Your task to perform on an android device: create a new album in the google photos Image 0: 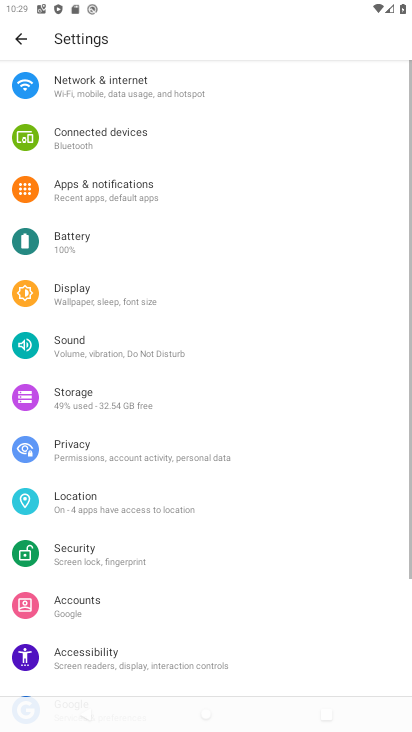
Step 0: press home button
Your task to perform on an android device: create a new album in the google photos Image 1: 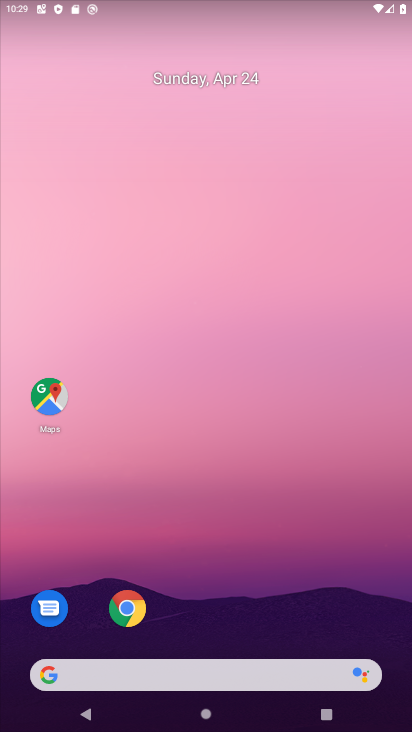
Step 1: drag from (275, 686) to (140, 157)
Your task to perform on an android device: create a new album in the google photos Image 2: 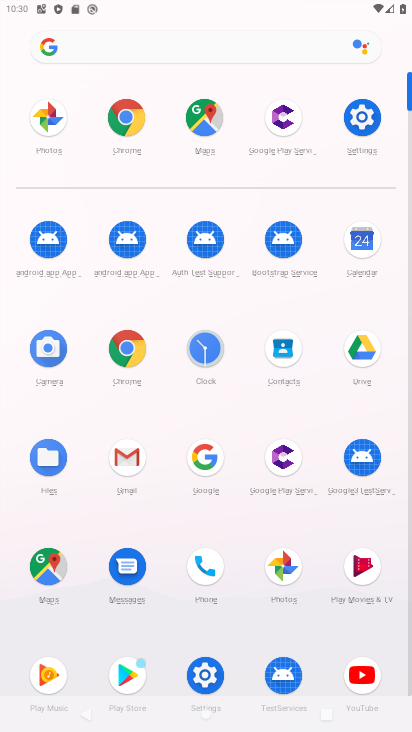
Step 2: click (284, 565)
Your task to perform on an android device: create a new album in the google photos Image 3: 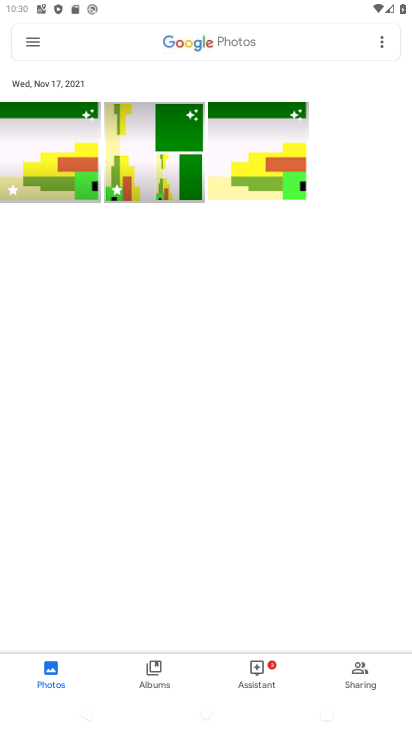
Step 3: click (265, 146)
Your task to perform on an android device: create a new album in the google photos Image 4: 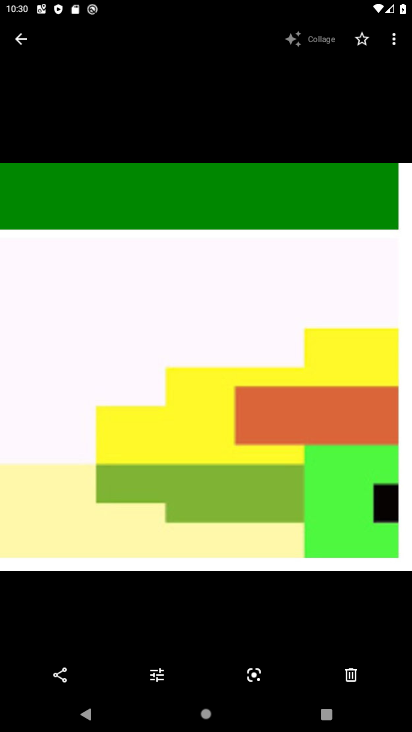
Step 4: click (391, 45)
Your task to perform on an android device: create a new album in the google photos Image 5: 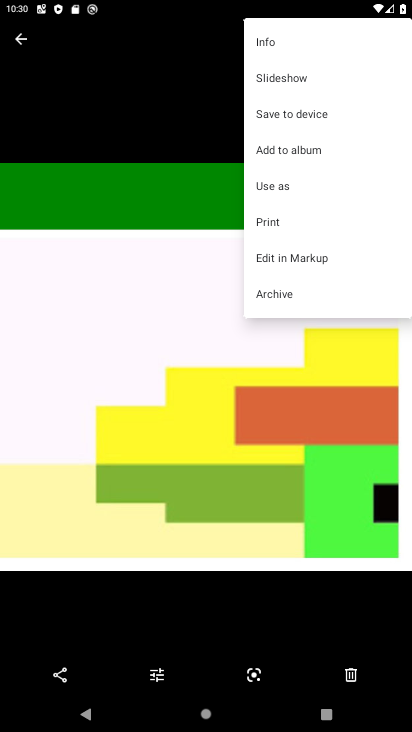
Step 5: click (274, 148)
Your task to perform on an android device: create a new album in the google photos Image 6: 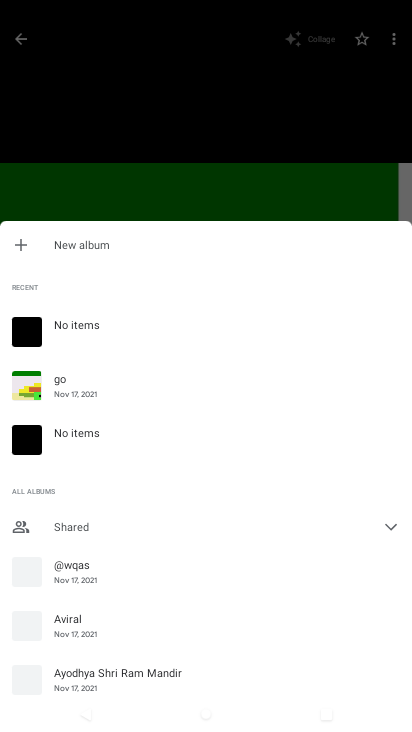
Step 6: click (99, 242)
Your task to perform on an android device: create a new album in the google photos Image 7: 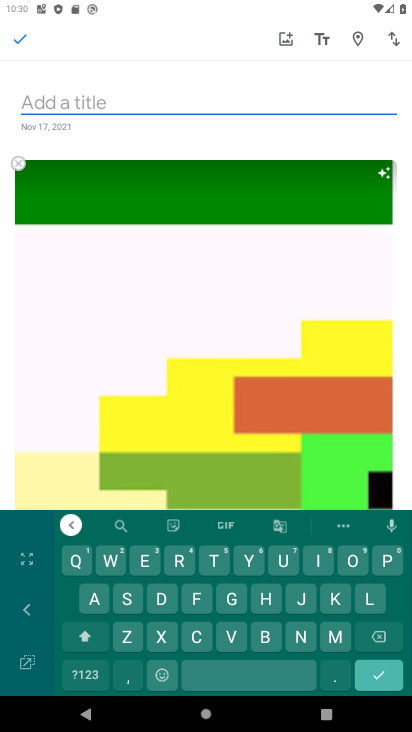
Step 7: click (251, 561)
Your task to perform on an android device: create a new album in the google photos Image 8: 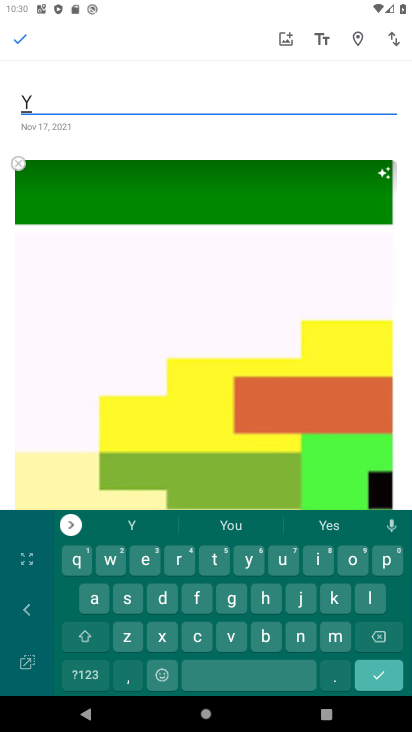
Step 8: click (268, 639)
Your task to perform on an android device: create a new album in the google photos Image 9: 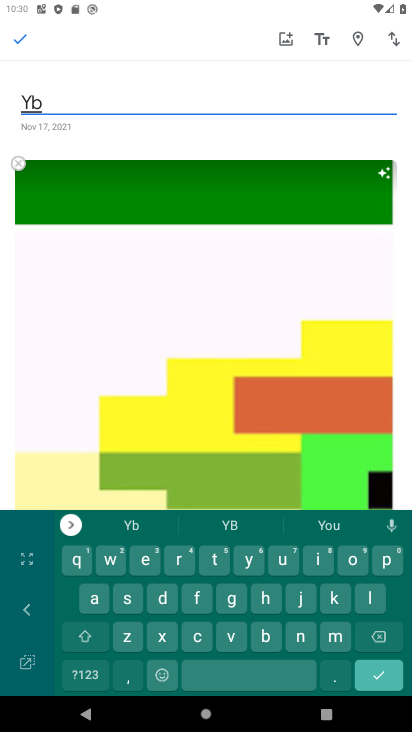
Step 9: click (23, 46)
Your task to perform on an android device: create a new album in the google photos Image 10: 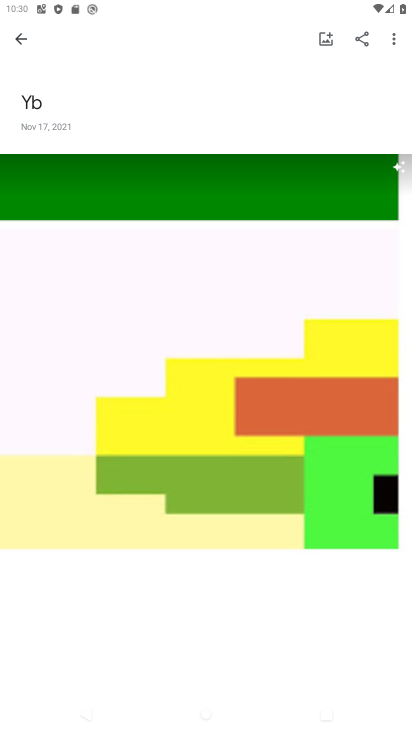
Step 10: task complete